Your task to perform on an android device: Open the web browser Image 0: 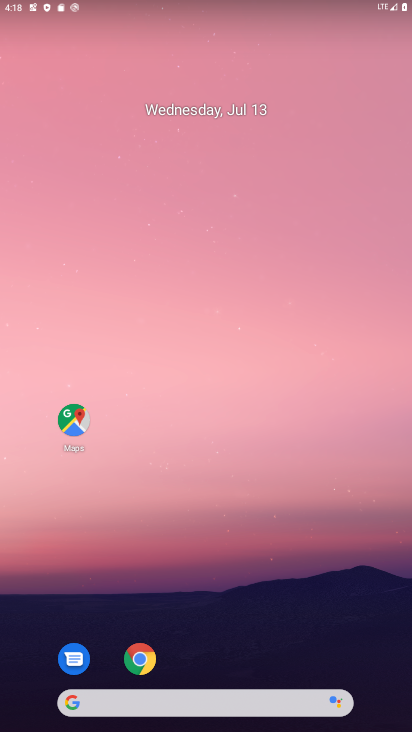
Step 0: press home button
Your task to perform on an android device: Open the web browser Image 1: 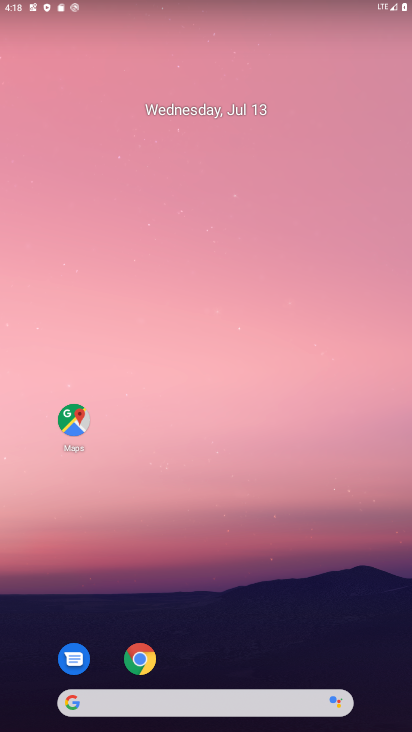
Step 1: click (142, 657)
Your task to perform on an android device: Open the web browser Image 2: 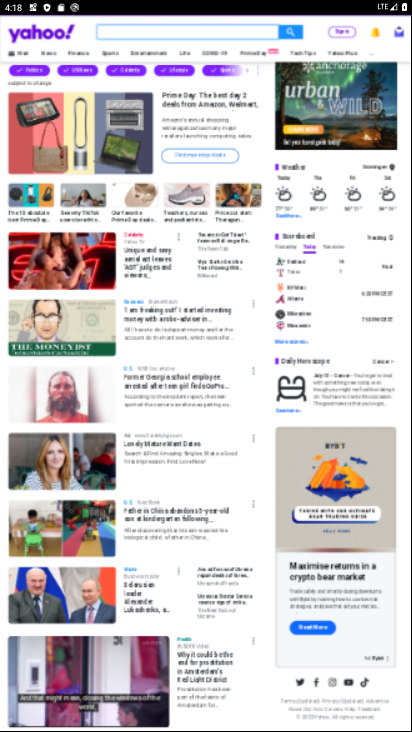
Step 2: task complete